Your task to perform on an android device: find which apps use the phone's location Image 0: 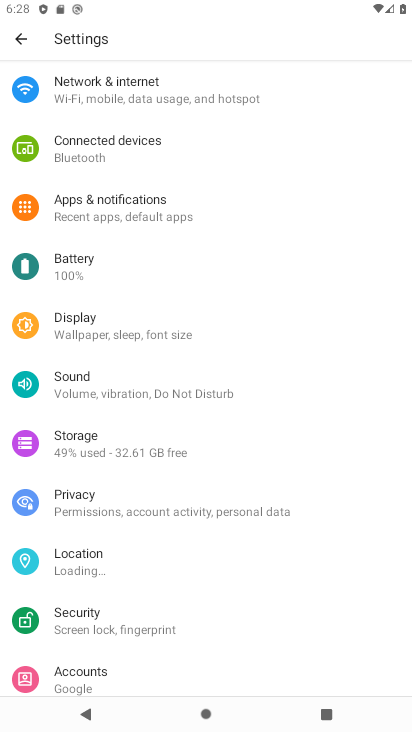
Step 0: press back button
Your task to perform on an android device: find which apps use the phone's location Image 1: 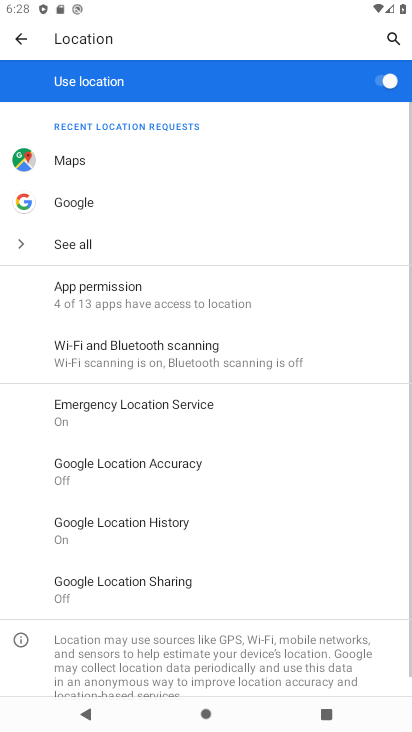
Step 1: click (65, 297)
Your task to perform on an android device: find which apps use the phone's location Image 2: 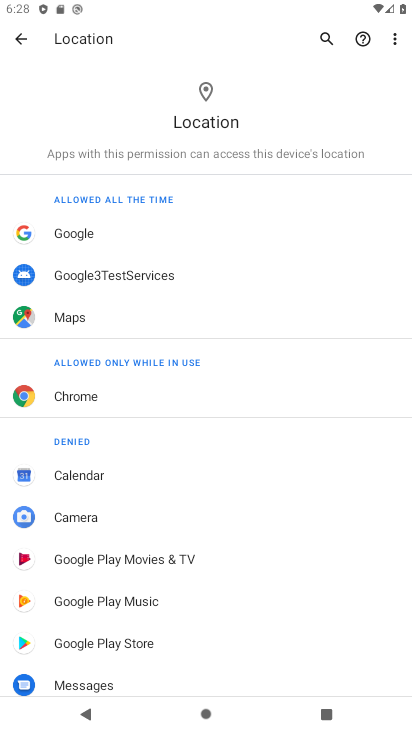
Step 2: task complete